Your task to perform on an android device: turn on location history Image 0: 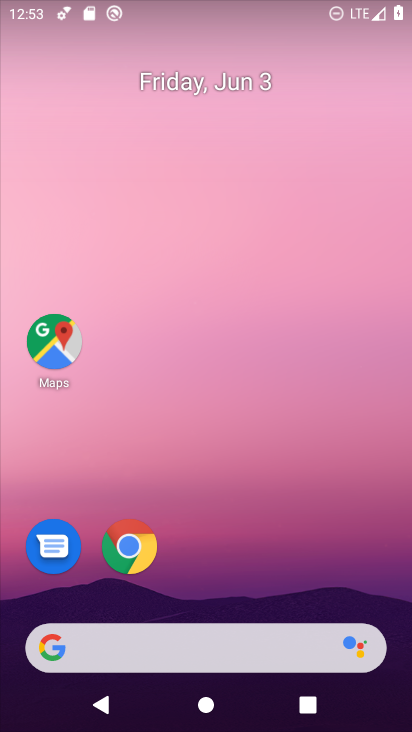
Step 0: drag from (304, 546) to (279, 42)
Your task to perform on an android device: turn on location history Image 1: 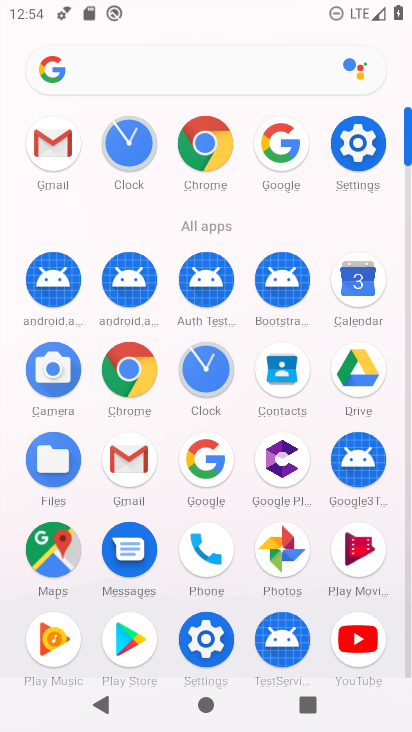
Step 1: click (360, 144)
Your task to perform on an android device: turn on location history Image 2: 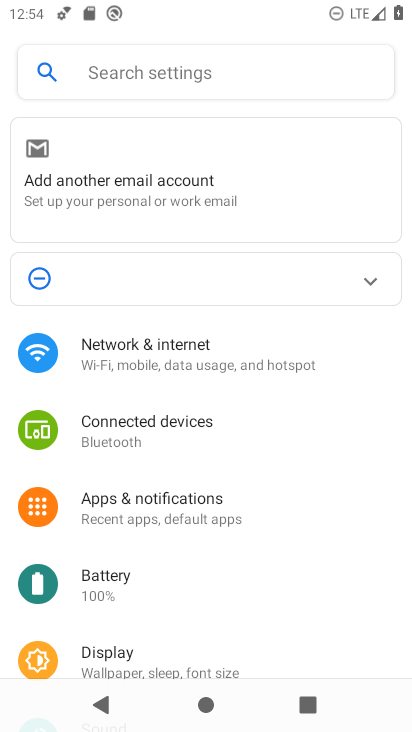
Step 2: drag from (152, 546) to (144, 350)
Your task to perform on an android device: turn on location history Image 3: 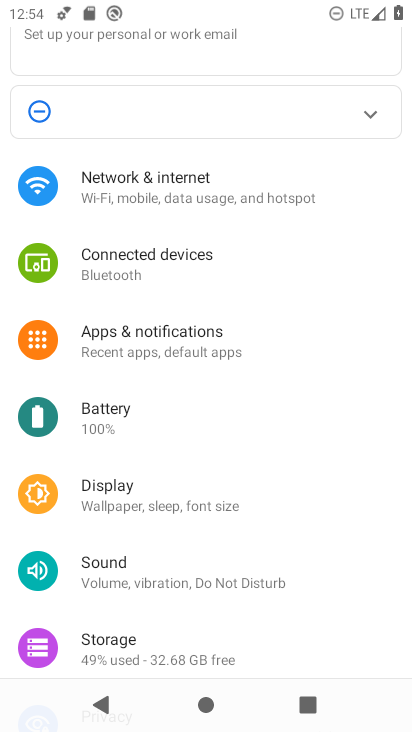
Step 3: drag from (164, 554) to (180, 416)
Your task to perform on an android device: turn on location history Image 4: 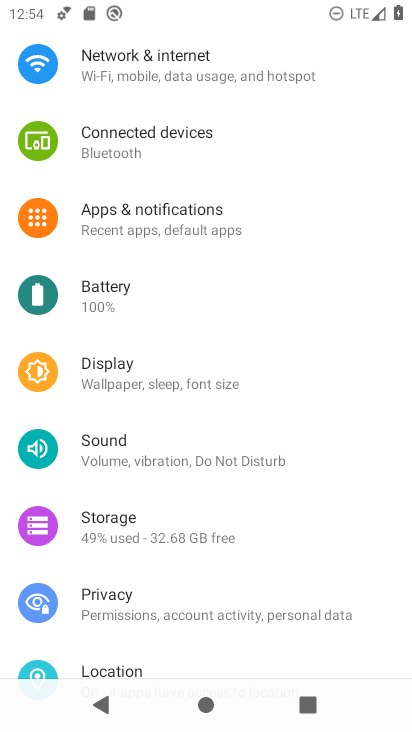
Step 4: drag from (175, 576) to (201, 398)
Your task to perform on an android device: turn on location history Image 5: 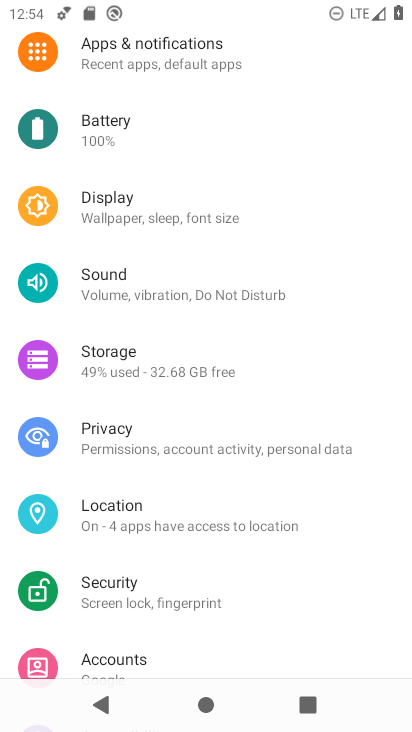
Step 5: click (166, 515)
Your task to perform on an android device: turn on location history Image 6: 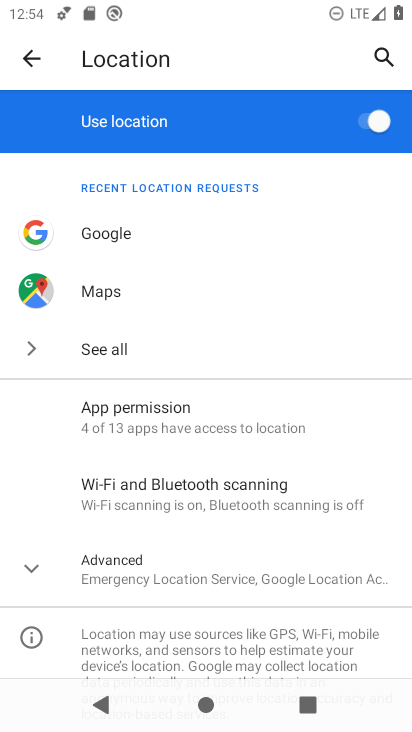
Step 6: click (231, 573)
Your task to perform on an android device: turn on location history Image 7: 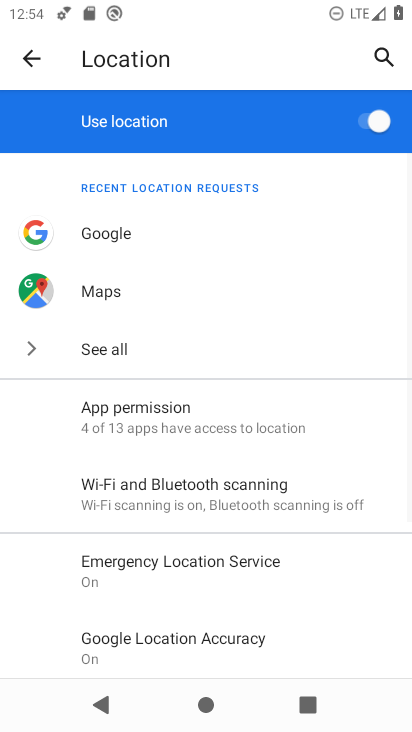
Step 7: drag from (210, 584) to (223, 472)
Your task to perform on an android device: turn on location history Image 8: 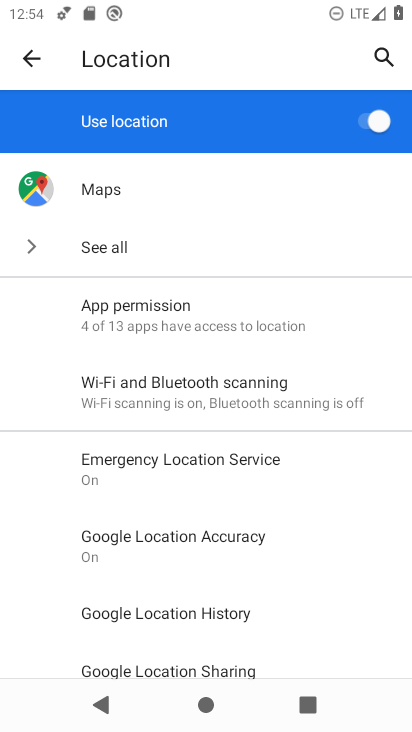
Step 8: click (194, 619)
Your task to perform on an android device: turn on location history Image 9: 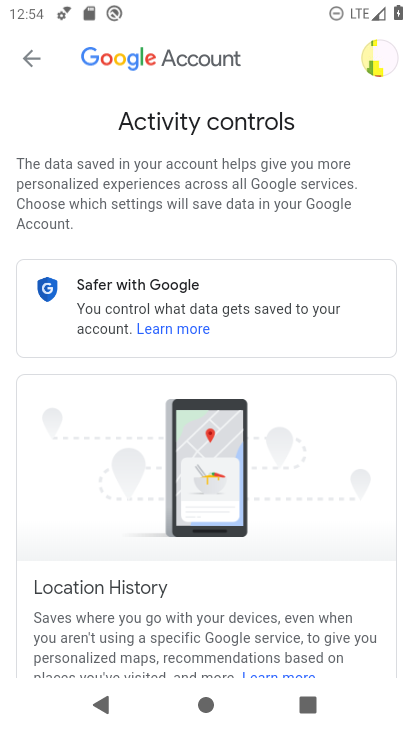
Step 9: task complete